Your task to perform on an android device: Go to battery settings Image 0: 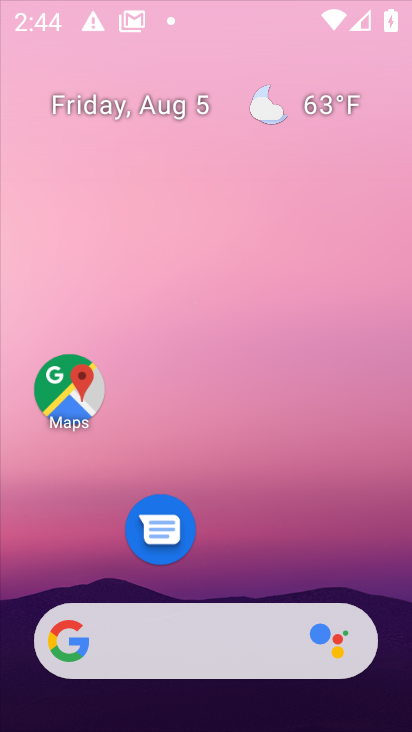
Step 0: click (86, 405)
Your task to perform on an android device: Go to battery settings Image 1: 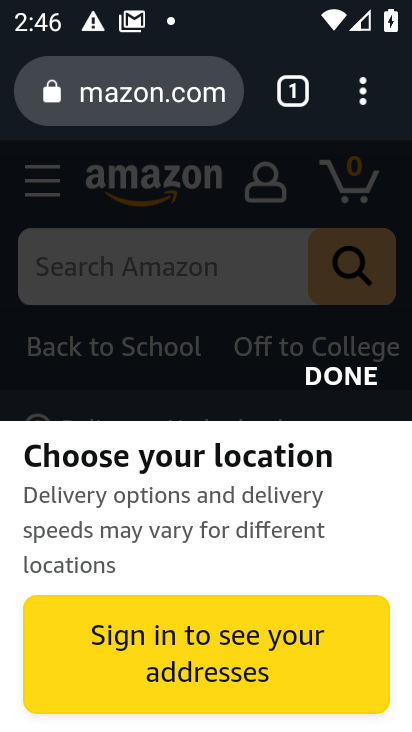
Step 1: press home button
Your task to perform on an android device: Go to battery settings Image 2: 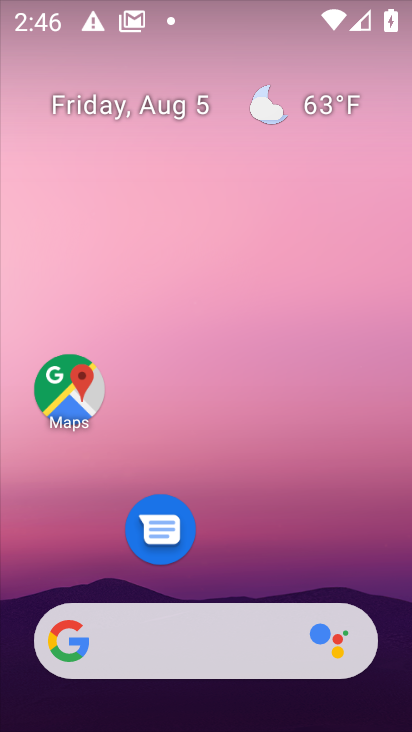
Step 2: drag from (183, 554) to (248, 130)
Your task to perform on an android device: Go to battery settings Image 3: 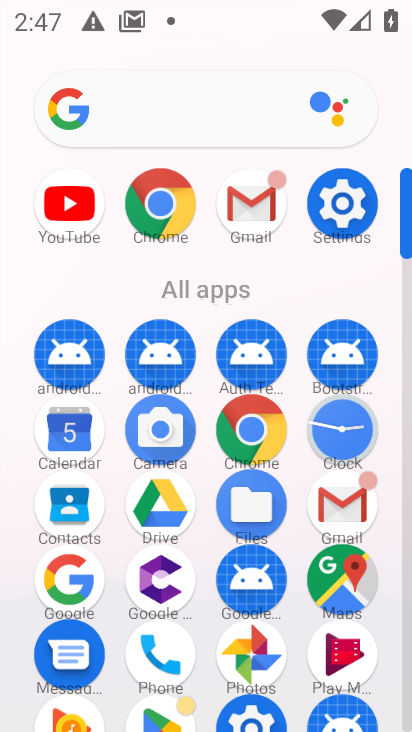
Step 3: click (358, 192)
Your task to perform on an android device: Go to battery settings Image 4: 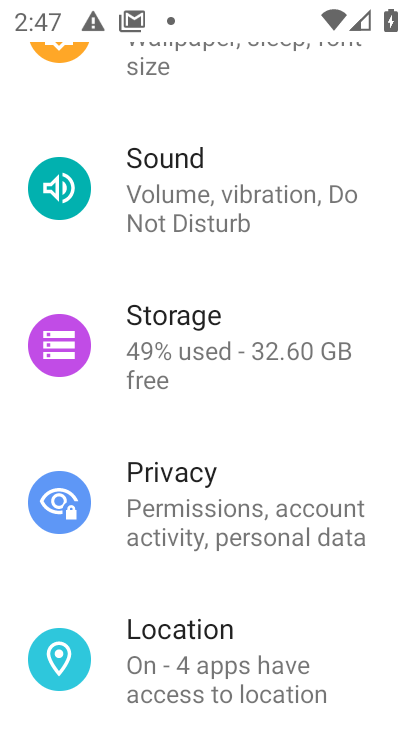
Step 4: drag from (114, 643) to (270, 77)
Your task to perform on an android device: Go to battery settings Image 5: 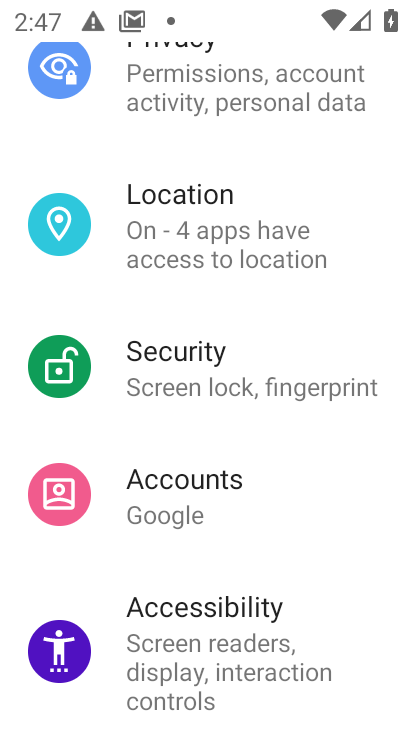
Step 5: drag from (264, 639) to (300, 229)
Your task to perform on an android device: Go to battery settings Image 6: 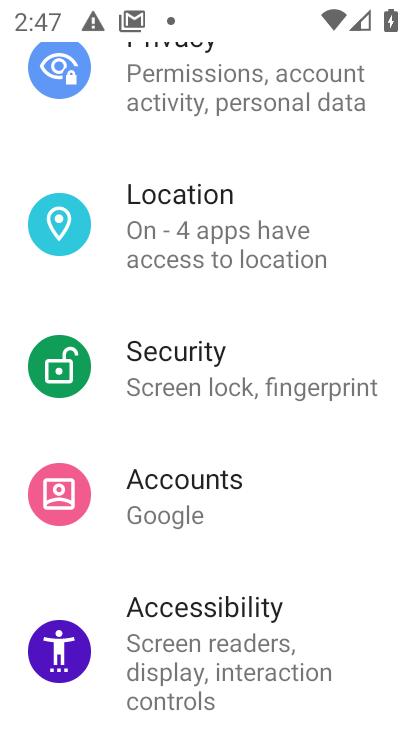
Step 6: drag from (263, 170) to (269, 677)
Your task to perform on an android device: Go to battery settings Image 7: 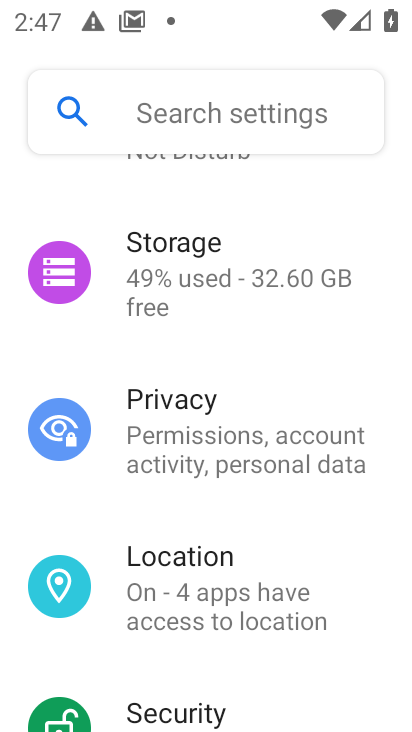
Step 7: drag from (324, 209) to (316, 727)
Your task to perform on an android device: Go to battery settings Image 8: 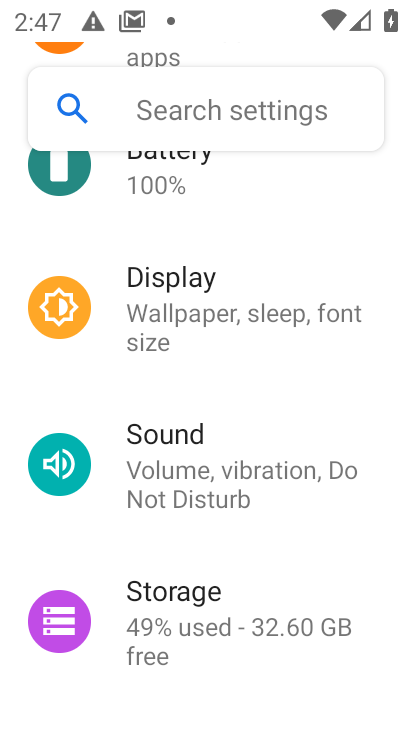
Step 8: drag from (252, 655) to (297, 681)
Your task to perform on an android device: Go to battery settings Image 9: 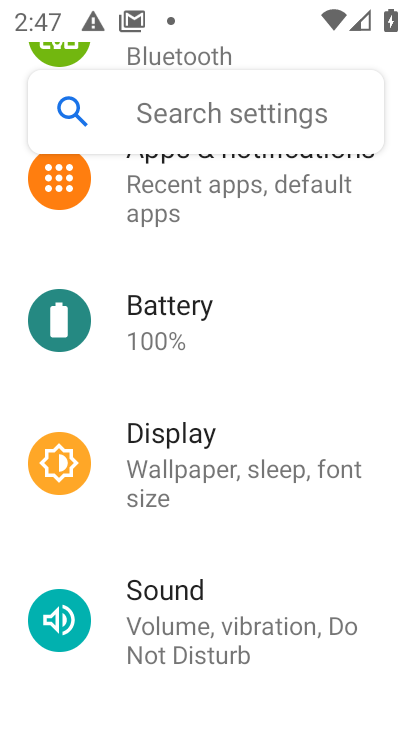
Step 9: click (253, 320)
Your task to perform on an android device: Go to battery settings Image 10: 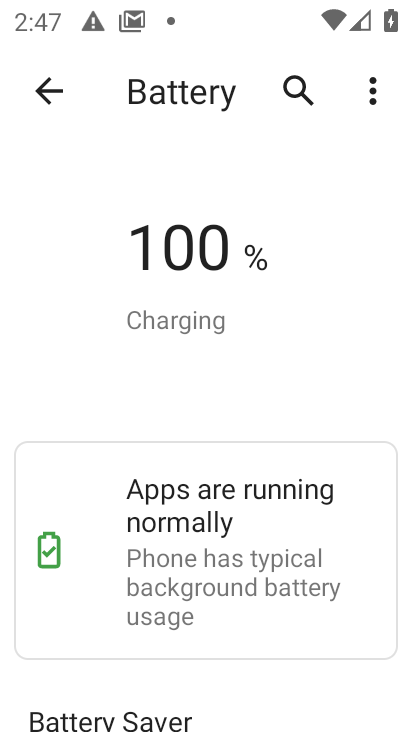
Step 10: task complete